Your task to perform on an android device: Show me popular games on the Play Store Image 0: 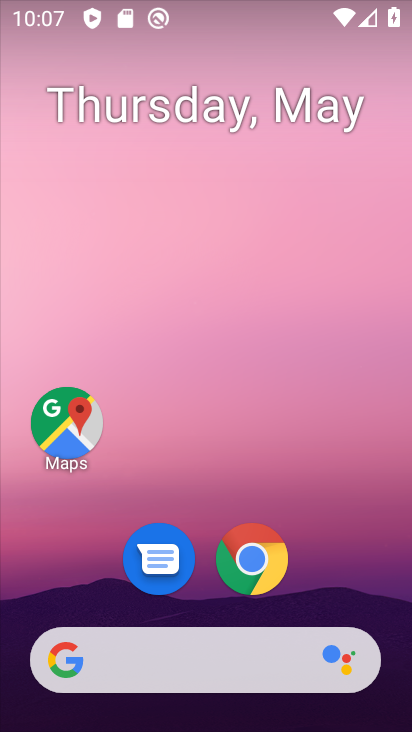
Step 0: drag from (372, 567) to (341, 79)
Your task to perform on an android device: Show me popular games on the Play Store Image 1: 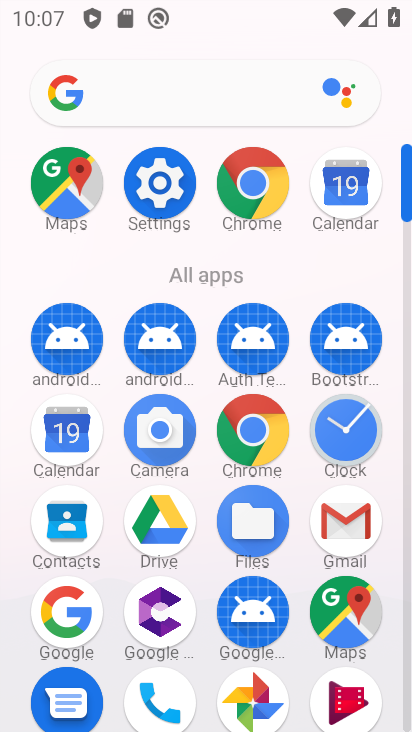
Step 1: drag from (395, 574) to (403, 150)
Your task to perform on an android device: Show me popular games on the Play Store Image 2: 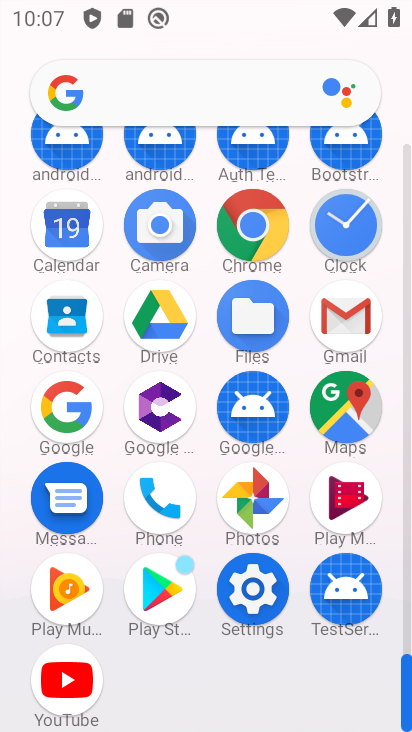
Step 2: click (174, 599)
Your task to perform on an android device: Show me popular games on the Play Store Image 3: 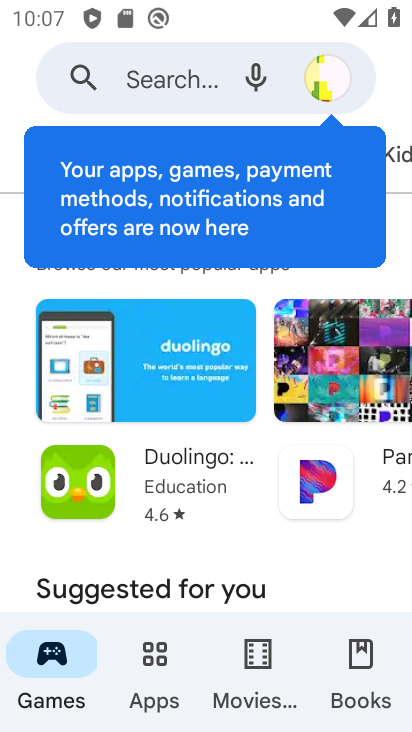
Step 3: click (170, 71)
Your task to perform on an android device: Show me popular games on the Play Store Image 4: 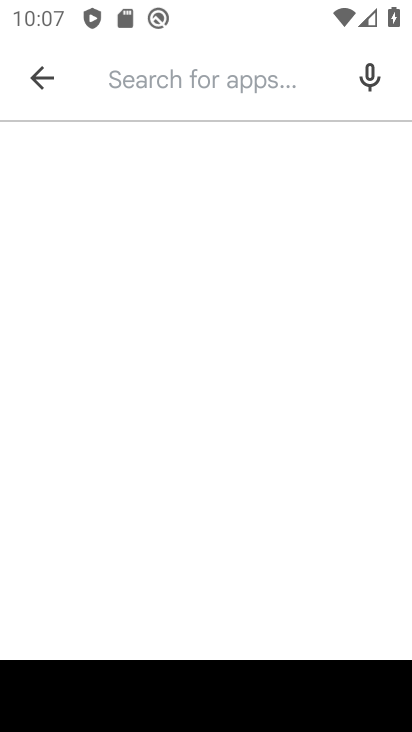
Step 4: type "popular gams"
Your task to perform on an android device: Show me popular games on the Play Store Image 5: 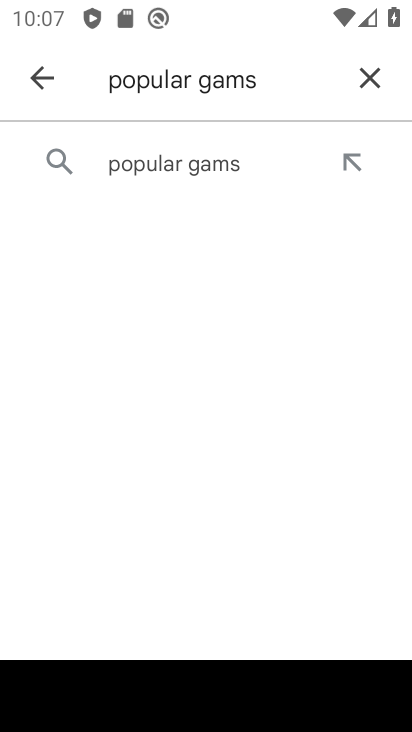
Step 5: click (150, 172)
Your task to perform on an android device: Show me popular games on the Play Store Image 6: 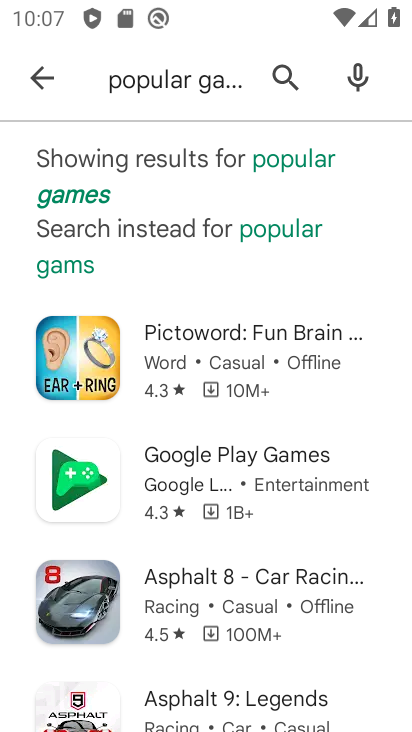
Step 6: click (80, 183)
Your task to perform on an android device: Show me popular games on the Play Store Image 7: 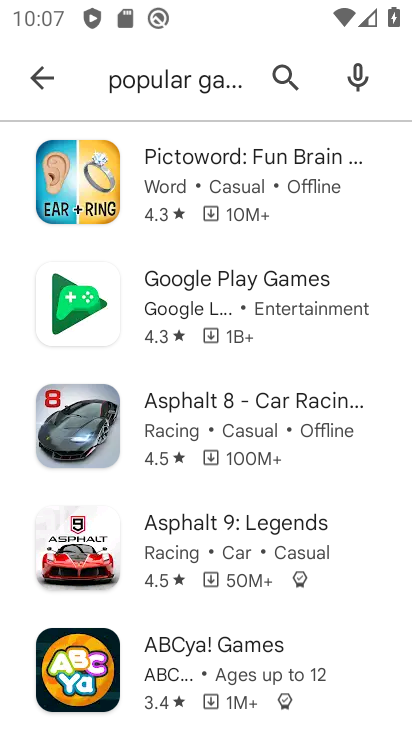
Step 7: click (80, 183)
Your task to perform on an android device: Show me popular games on the Play Store Image 8: 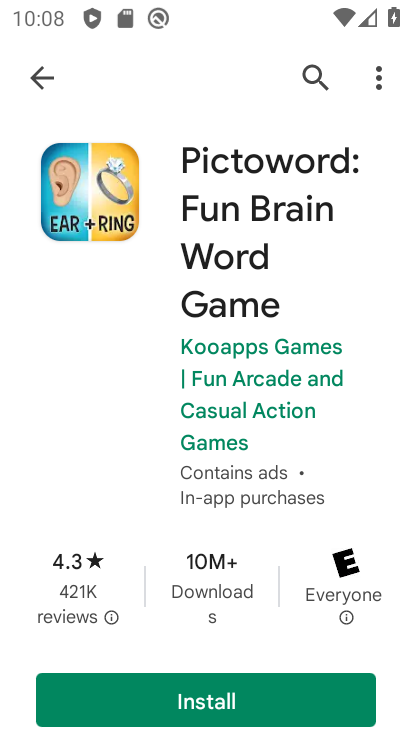
Step 8: task complete